Your task to perform on an android device: change the clock display to analog Image 0: 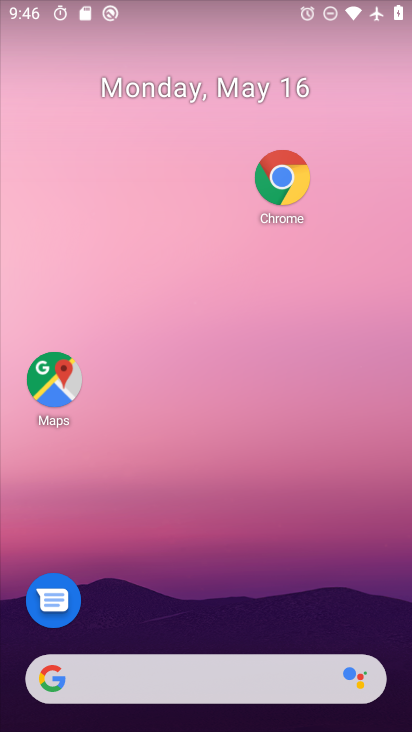
Step 0: drag from (214, 679) to (365, 81)
Your task to perform on an android device: change the clock display to analog Image 1: 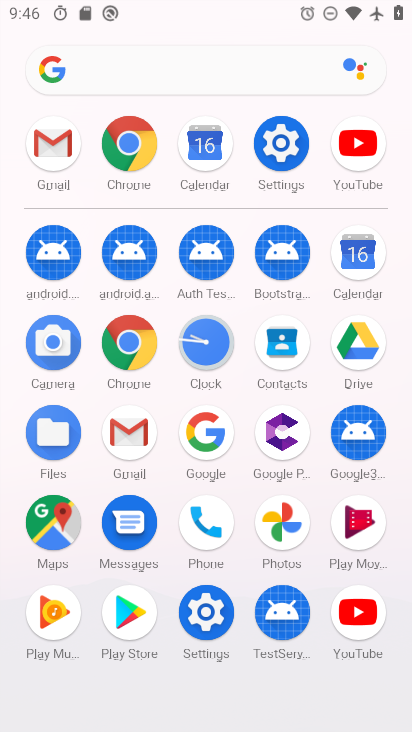
Step 1: click (205, 341)
Your task to perform on an android device: change the clock display to analog Image 2: 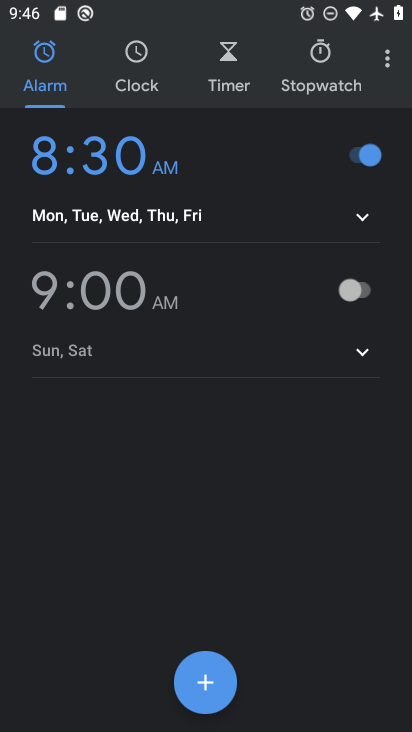
Step 2: click (390, 64)
Your task to perform on an android device: change the clock display to analog Image 3: 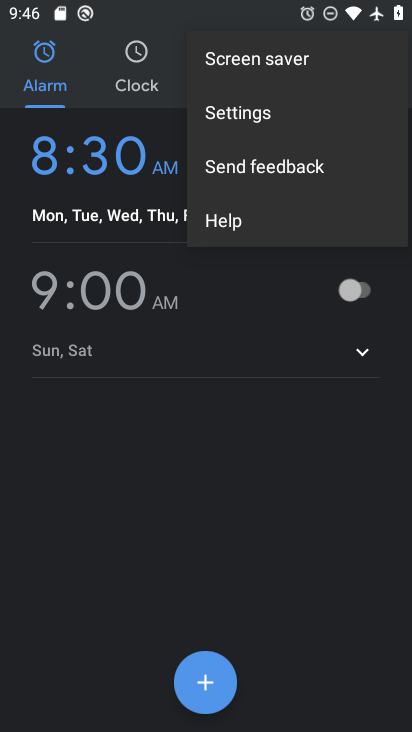
Step 3: click (265, 118)
Your task to perform on an android device: change the clock display to analog Image 4: 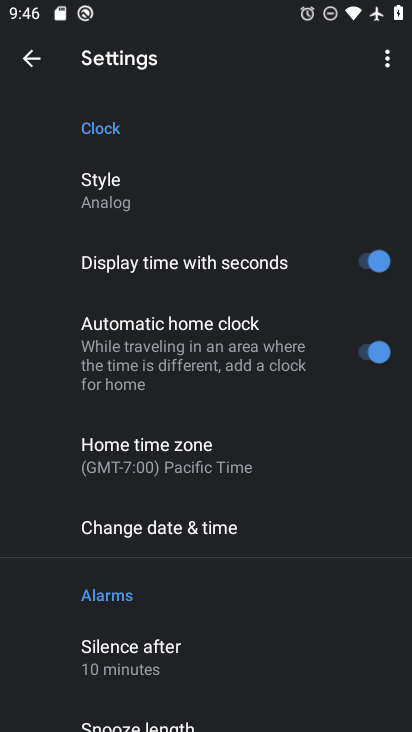
Step 4: task complete